Your task to perform on an android device: open app "Google Photos" Image 0: 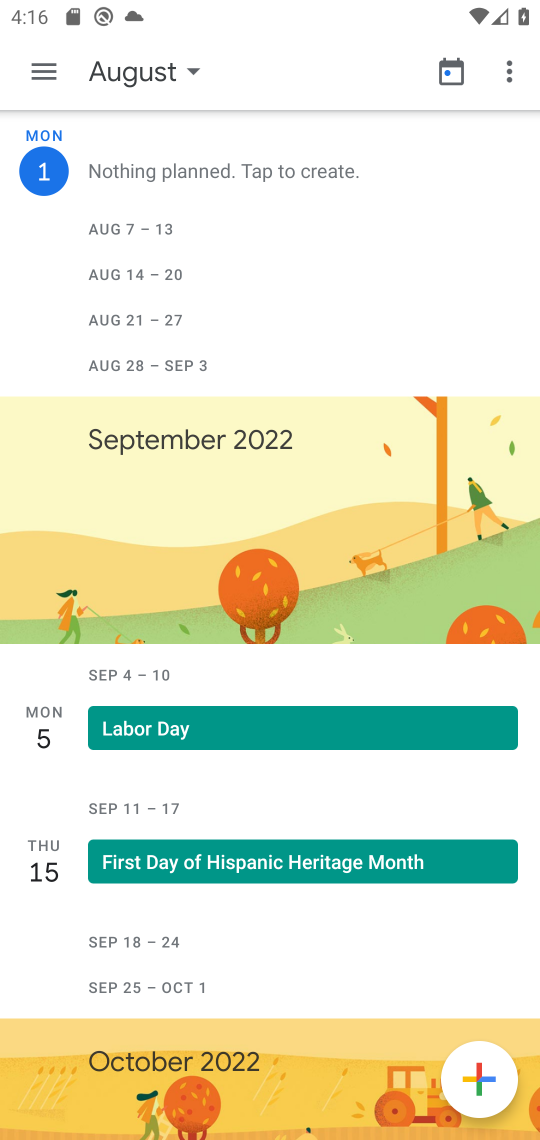
Step 0: press home button
Your task to perform on an android device: open app "Google Photos" Image 1: 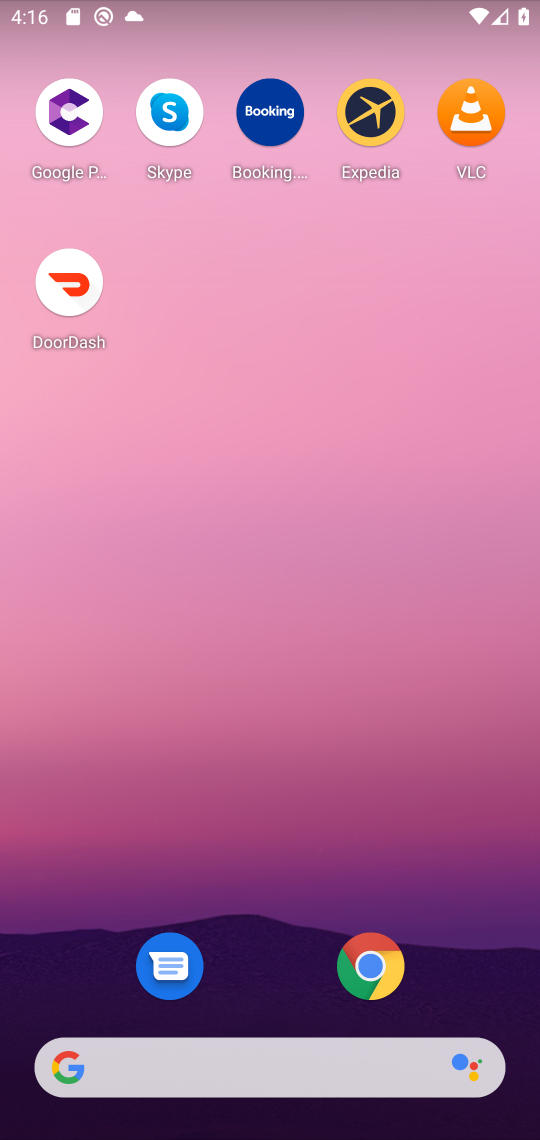
Step 1: drag from (244, 1037) to (232, 137)
Your task to perform on an android device: open app "Google Photos" Image 2: 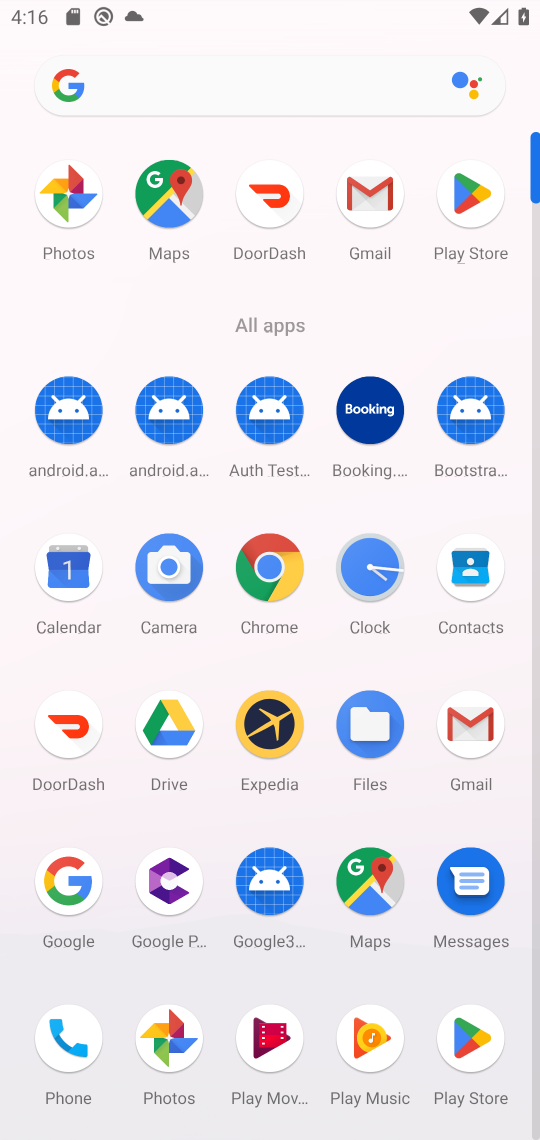
Step 2: click (79, 202)
Your task to perform on an android device: open app "Google Photos" Image 3: 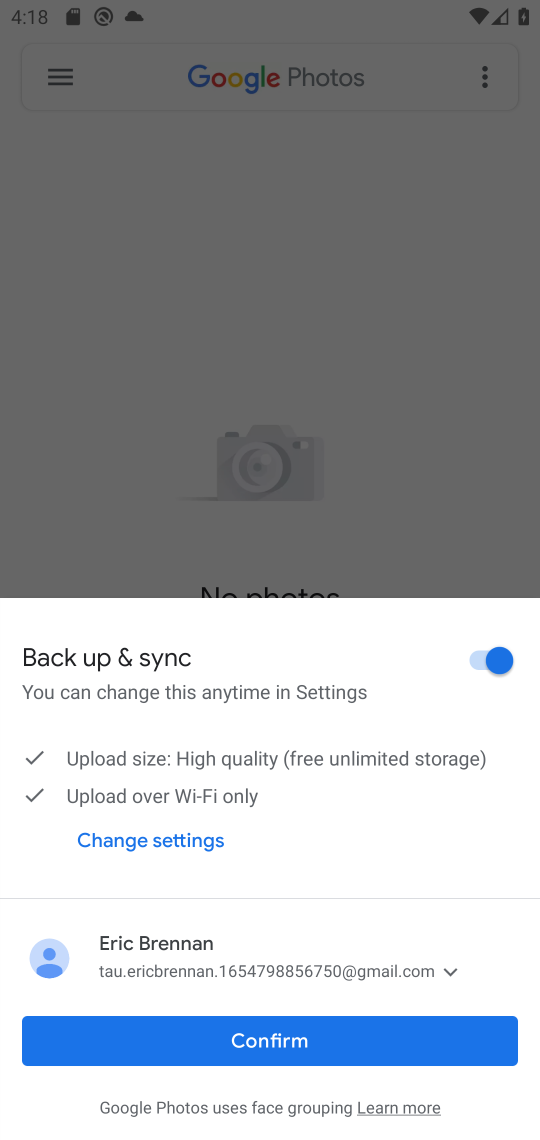
Step 3: task complete